Your task to perform on an android device: turn on wifi Image 0: 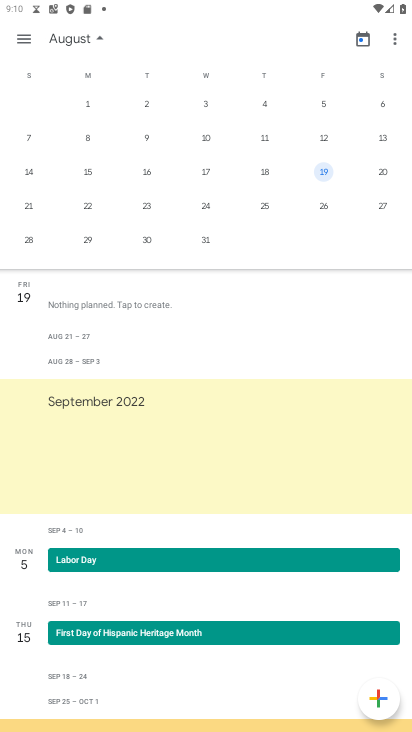
Step 0: drag from (267, 0) to (247, 705)
Your task to perform on an android device: turn on wifi Image 1: 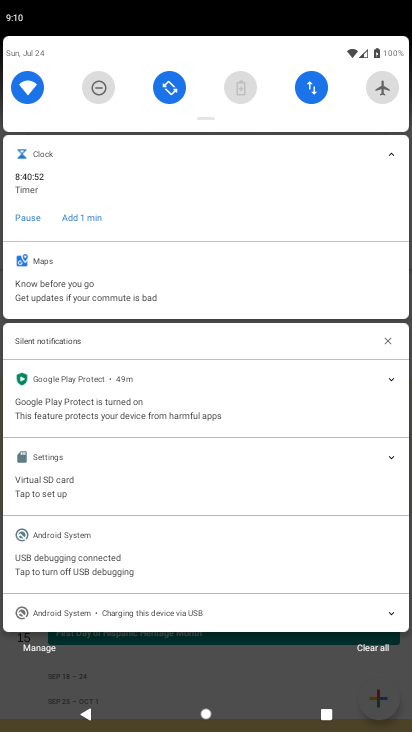
Step 1: click (34, 85)
Your task to perform on an android device: turn on wifi Image 2: 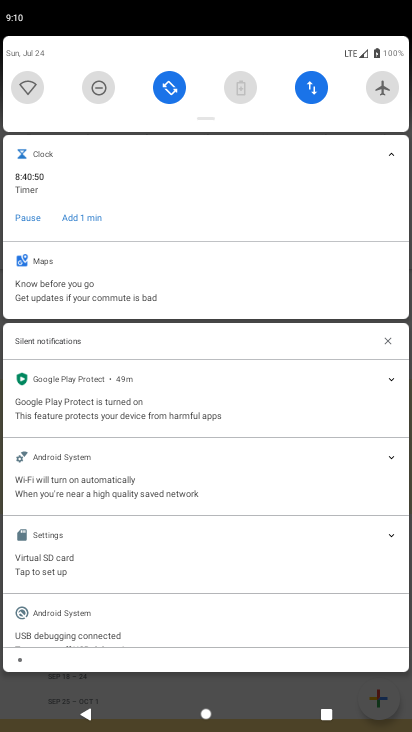
Step 2: task complete